Your task to perform on an android device: Open Youtube and go to the subscriptions tab Image 0: 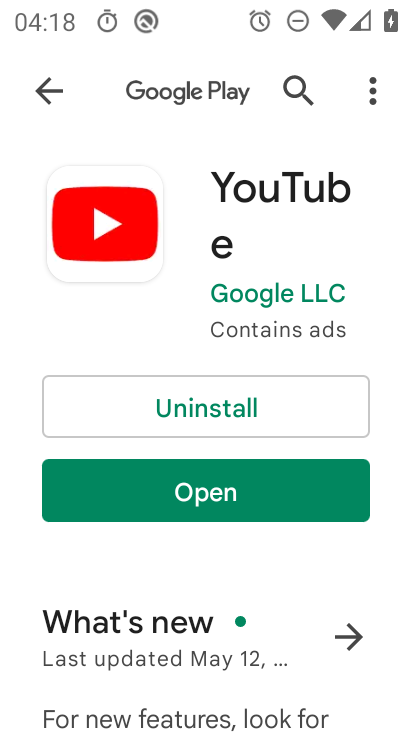
Step 0: press home button
Your task to perform on an android device: Open Youtube and go to the subscriptions tab Image 1: 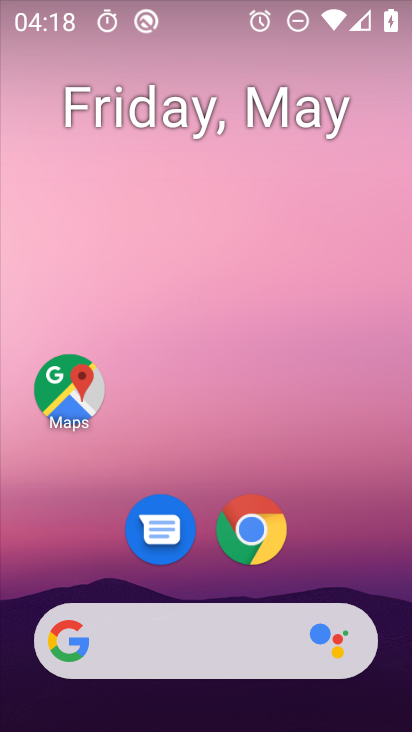
Step 1: drag from (398, 707) to (368, 189)
Your task to perform on an android device: Open Youtube and go to the subscriptions tab Image 2: 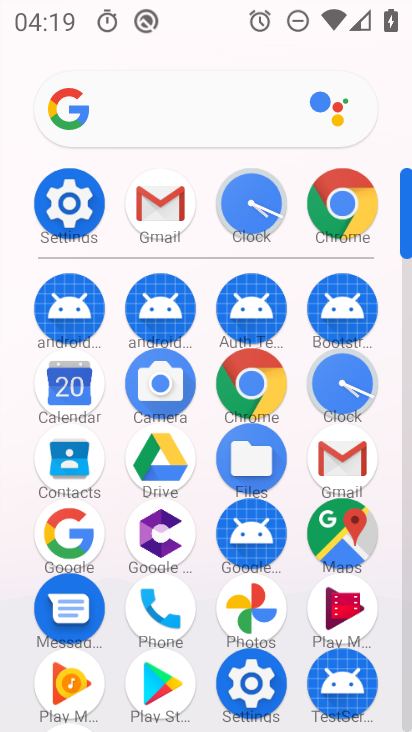
Step 2: drag from (407, 176) to (401, 72)
Your task to perform on an android device: Open Youtube and go to the subscriptions tab Image 3: 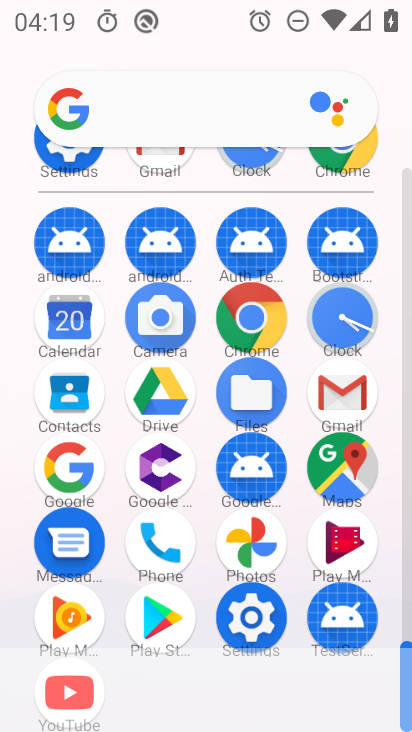
Step 3: click (83, 687)
Your task to perform on an android device: Open Youtube and go to the subscriptions tab Image 4: 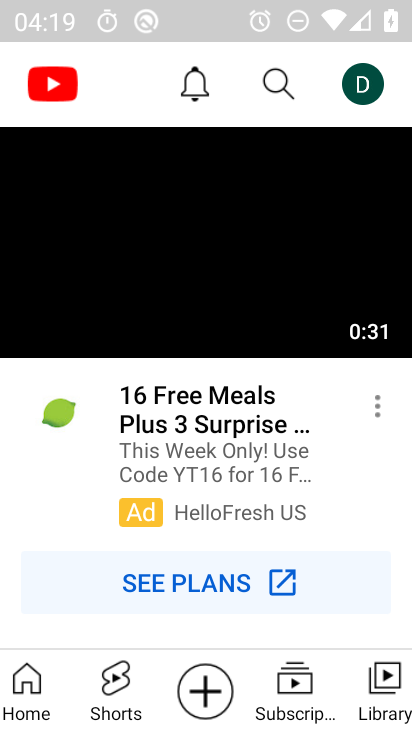
Step 4: click (279, 688)
Your task to perform on an android device: Open Youtube and go to the subscriptions tab Image 5: 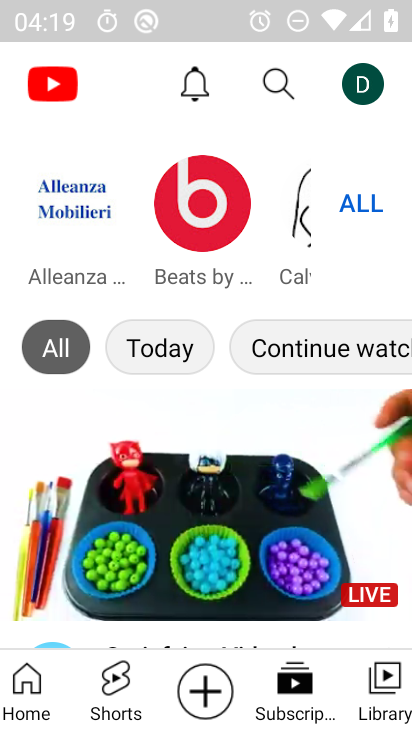
Step 5: task complete